Your task to perform on an android device: read, delete, or share a saved page in the chrome app Image 0: 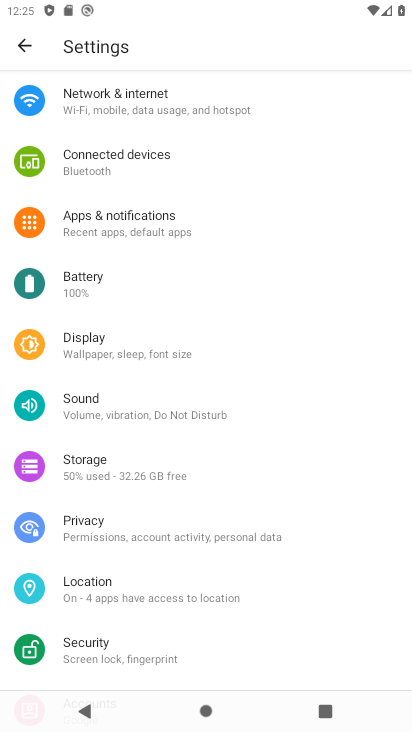
Step 0: press home button
Your task to perform on an android device: read, delete, or share a saved page in the chrome app Image 1: 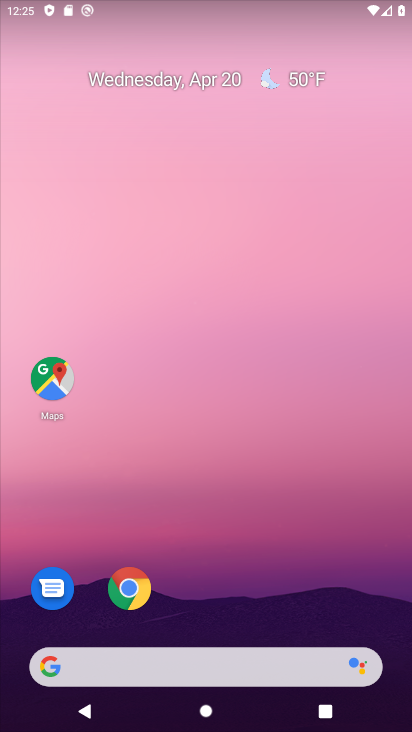
Step 1: click (125, 581)
Your task to perform on an android device: read, delete, or share a saved page in the chrome app Image 2: 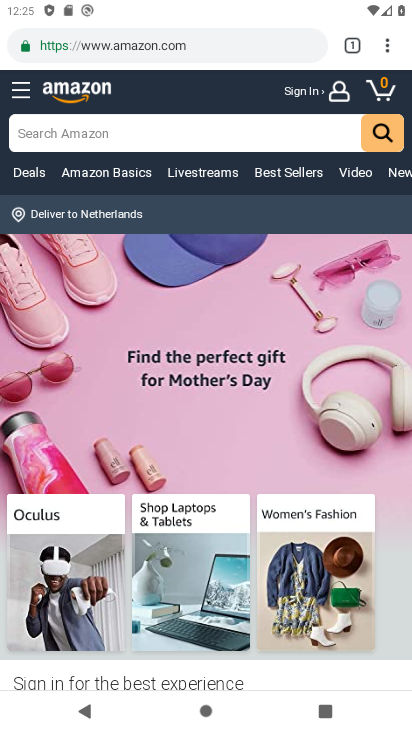
Step 2: click (385, 45)
Your task to perform on an android device: read, delete, or share a saved page in the chrome app Image 3: 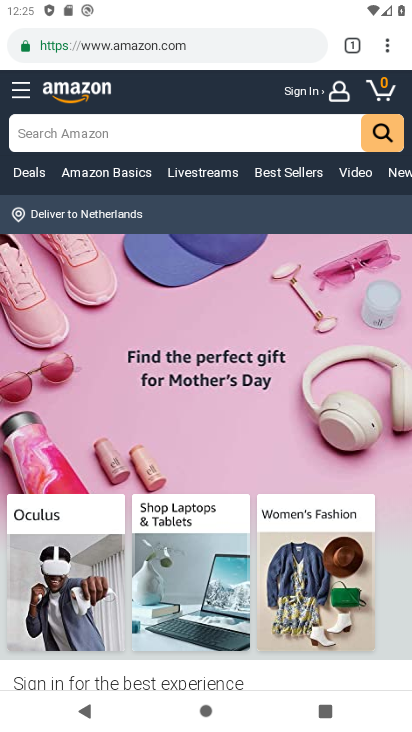
Step 3: click (382, 45)
Your task to perform on an android device: read, delete, or share a saved page in the chrome app Image 4: 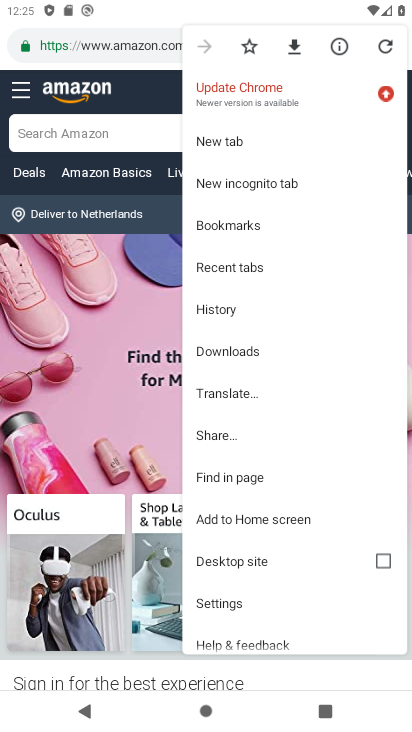
Step 4: click (255, 347)
Your task to perform on an android device: read, delete, or share a saved page in the chrome app Image 5: 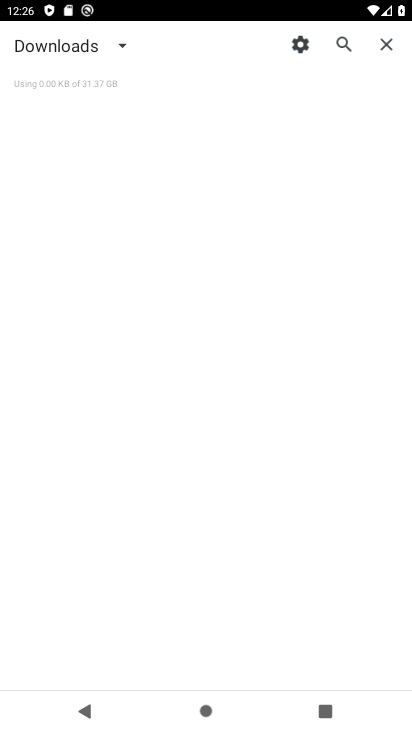
Step 5: task complete